Your task to perform on an android device: change notifications settings Image 0: 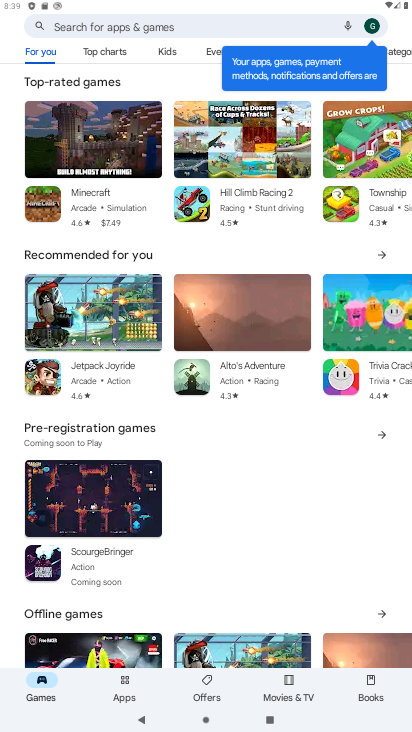
Step 0: press home button
Your task to perform on an android device: change notifications settings Image 1: 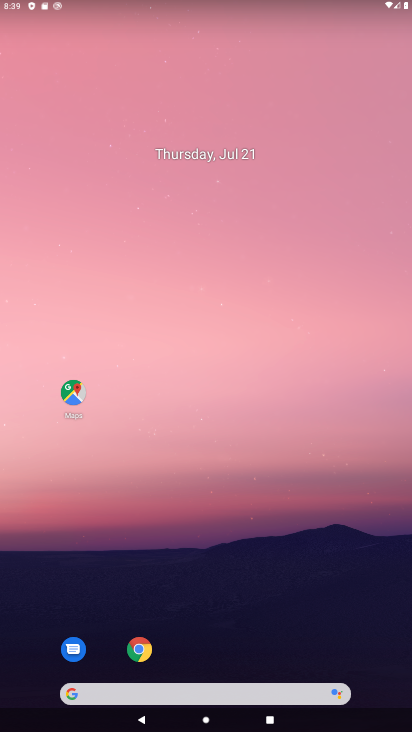
Step 1: drag from (221, 664) to (259, 132)
Your task to perform on an android device: change notifications settings Image 2: 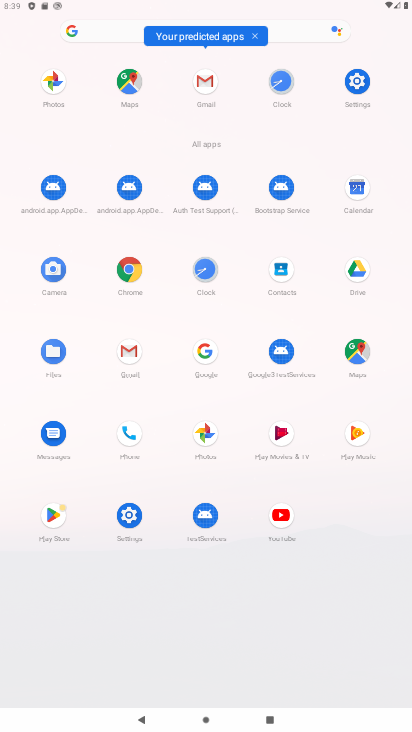
Step 2: click (356, 82)
Your task to perform on an android device: change notifications settings Image 3: 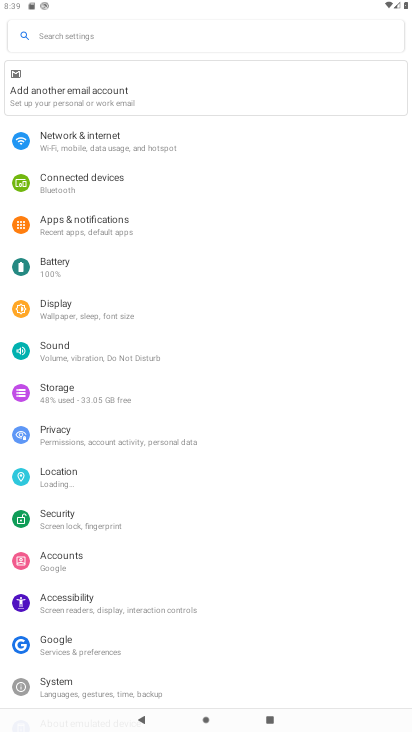
Step 3: click (80, 220)
Your task to perform on an android device: change notifications settings Image 4: 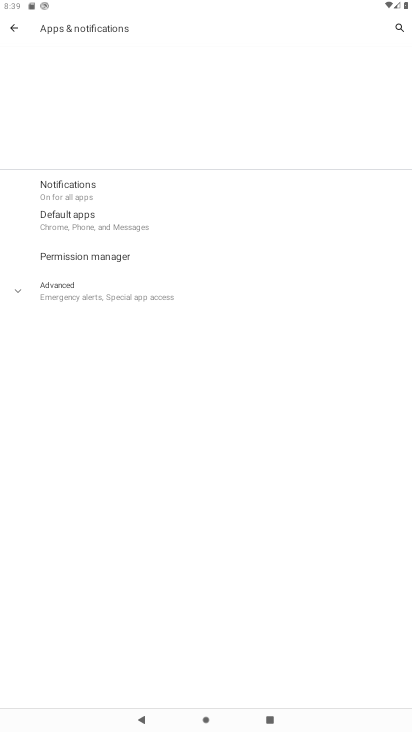
Step 4: click (64, 189)
Your task to perform on an android device: change notifications settings Image 5: 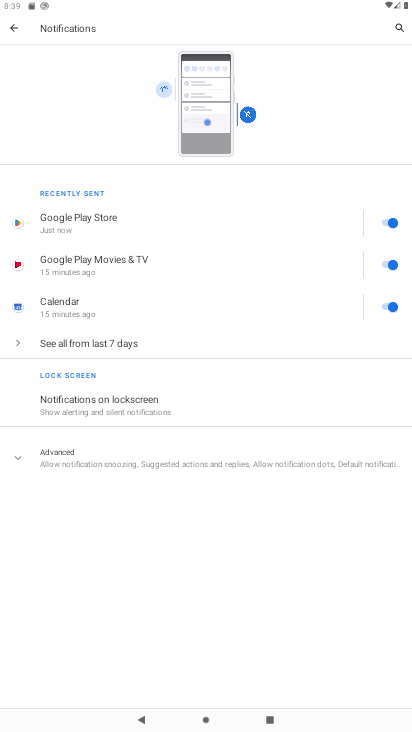
Step 5: task complete